Your task to perform on an android device: turn off translation in the chrome app Image 0: 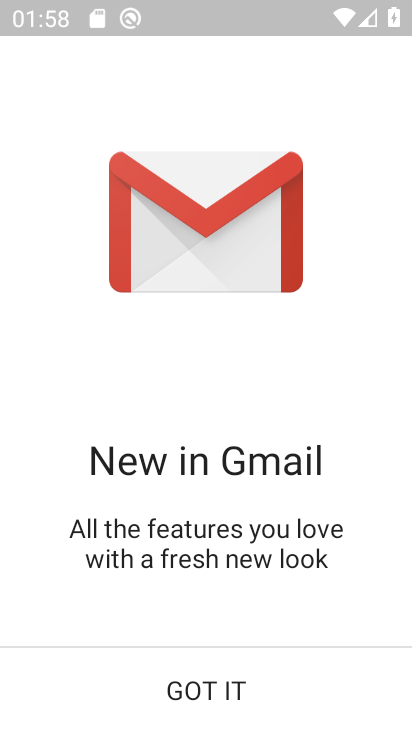
Step 0: click (221, 685)
Your task to perform on an android device: turn off translation in the chrome app Image 1: 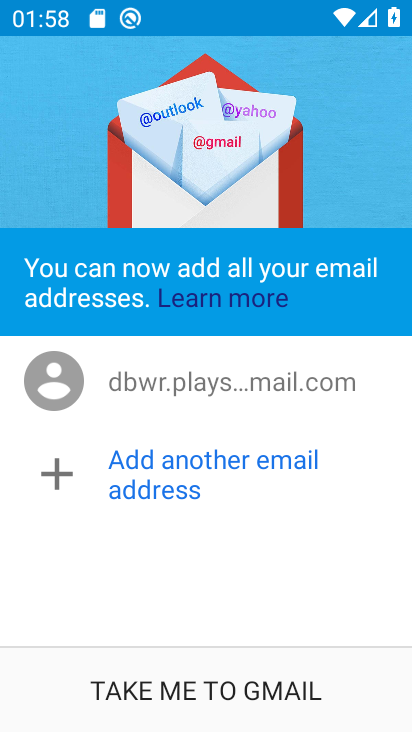
Step 1: press home button
Your task to perform on an android device: turn off translation in the chrome app Image 2: 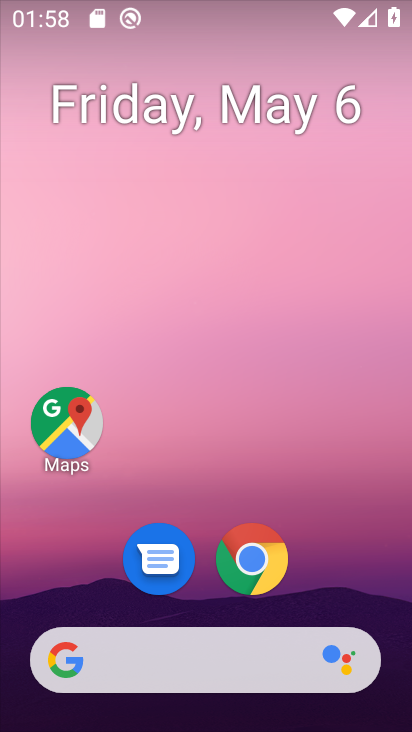
Step 2: drag from (274, 631) to (300, 9)
Your task to perform on an android device: turn off translation in the chrome app Image 3: 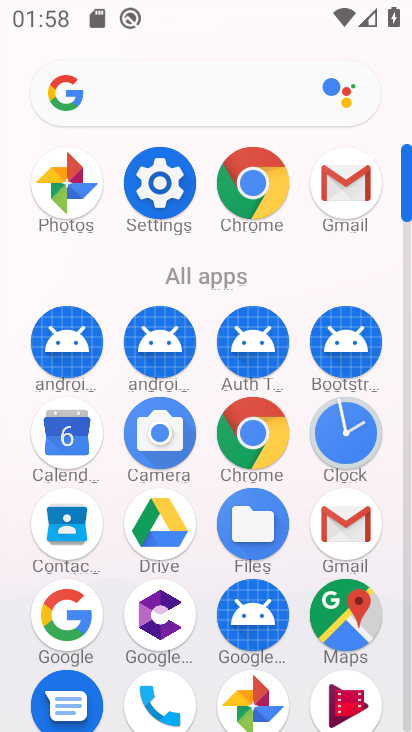
Step 3: click (261, 436)
Your task to perform on an android device: turn off translation in the chrome app Image 4: 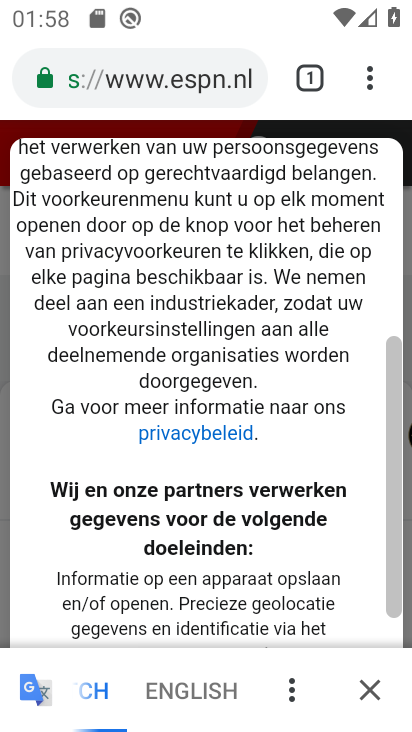
Step 4: drag from (381, 70) to (120, 629)
Your task to perform on an android device: turn off translation in the chrome app Image 5: 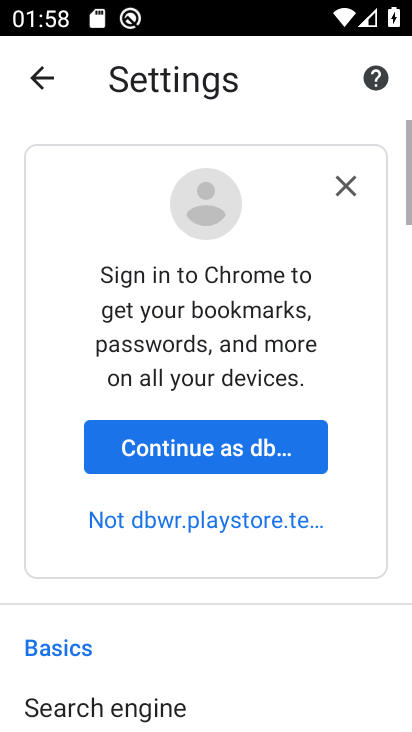
Step 5: drag from (170, 643) to (167, 70)
Your task to perform on an android device: turn off translation in the chrome app Image 6: 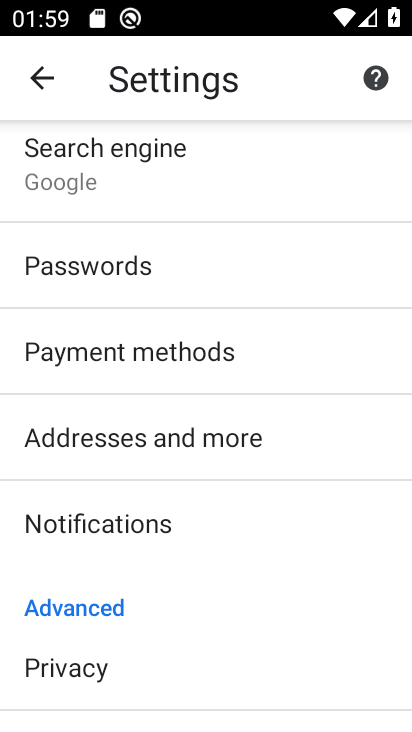
Step 6: drag from (225, 663) to (272, 61)
Your task to perform on an android device: turn off translation in the chrome app Image 7: 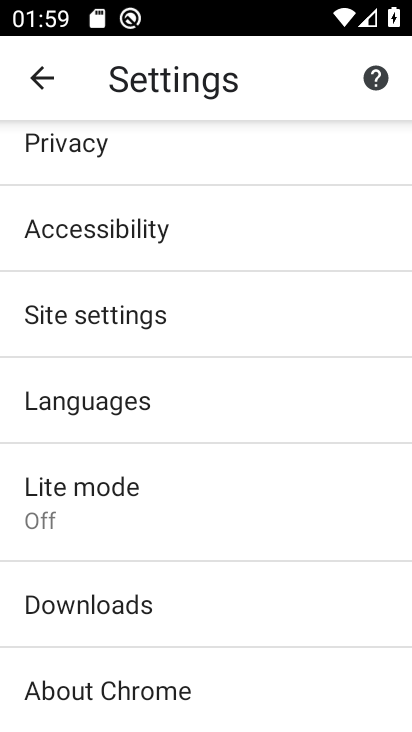
Step 7: click (121, 421)
Your task to perform on an android device: turn off translation in the chrome app Image 8: 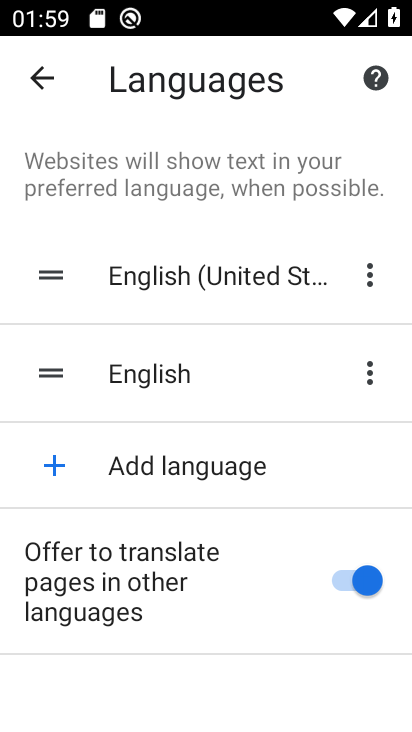
Step 8: click (336, 585)
Your task to perform on an android device: turn off translation in the chrome app Image 9: 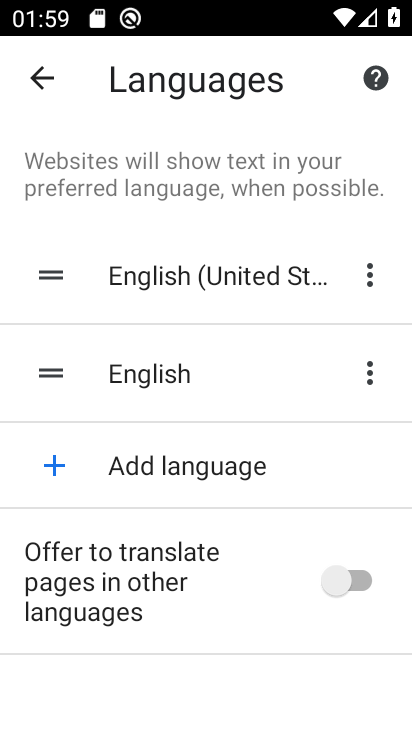
Step 9: task complete